Your task to perform on an android device: open device folders in google photos Image 0: 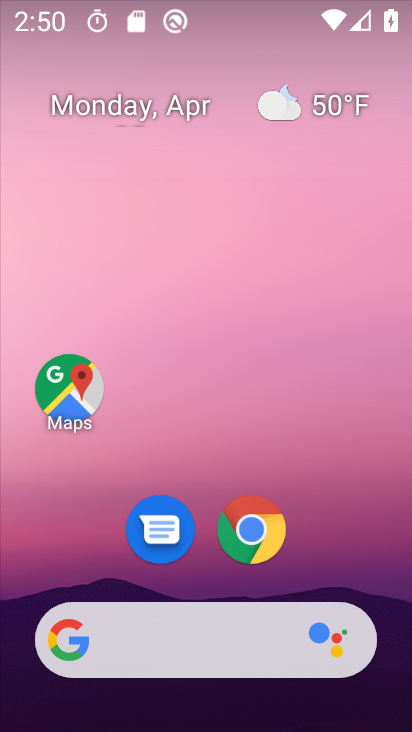
Step 0: click (288, 208)
Your task to perform on an android device: open device folders in google photos Image 1: 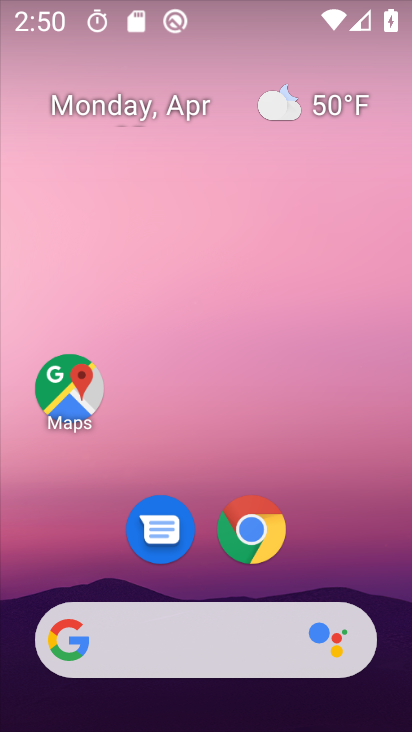
Step 1: drag from (320, 291) to (304, 210)
Your task to perform on an android device: open device folders in google photos Image 2: 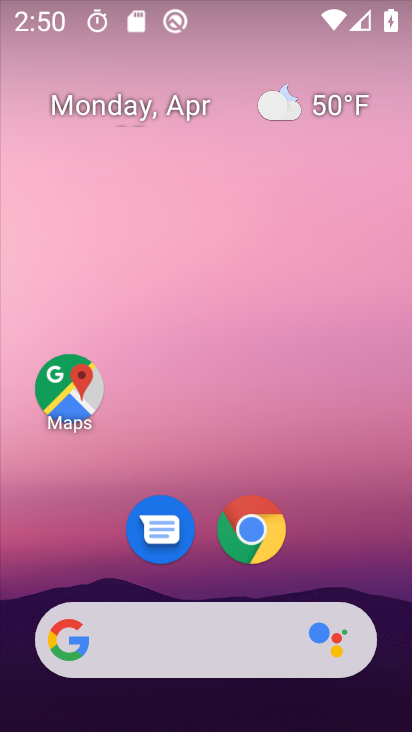
Step 2: click (336, 290)
Your task to perform on an android device: open device folders in google photos Image 3: 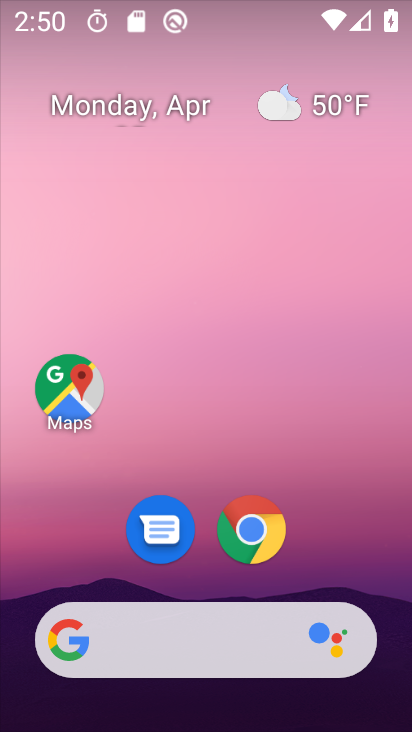
Step 3: drag from (343, 396) to (298, 150)
Your task to perform on an android device: open device folders in google photos Image 4: 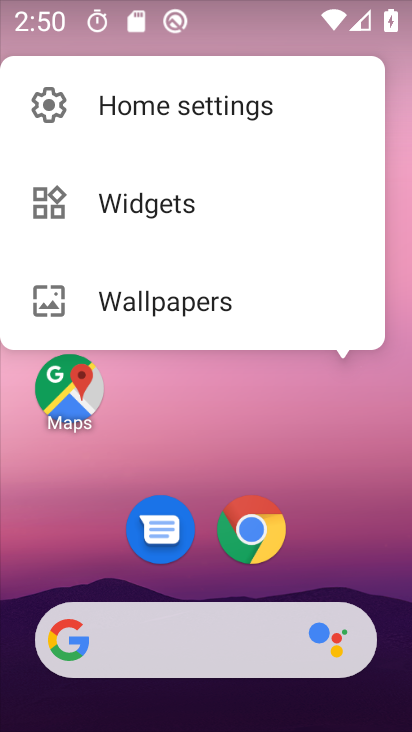
Step 4: click (336, 441)
Your task to perform on an android device: open device folders in google photos Image 5: 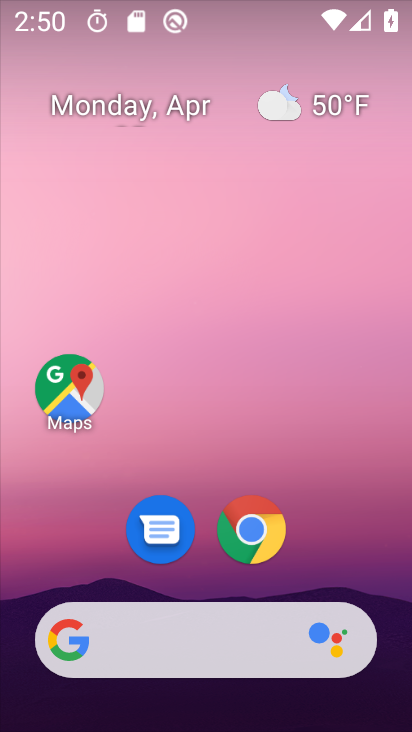
Step 5: drag from (385, 496) to (319, 115)
Your task to perform on an android device: open device folders in google photos Image 6: 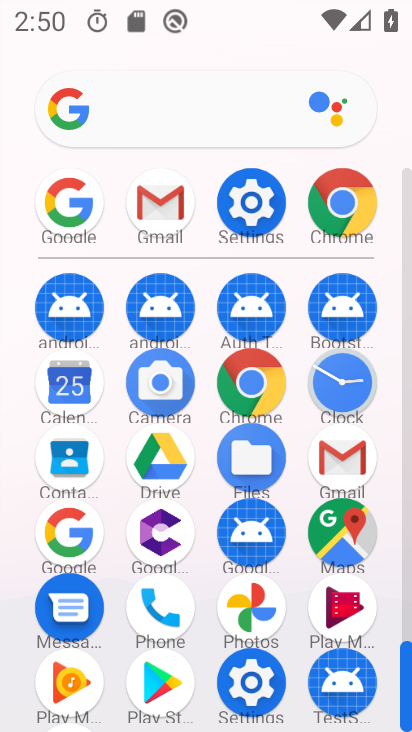
Step 6: click (251, 588)
Your task to perform on an android device: open device folders in google photos Image 7: 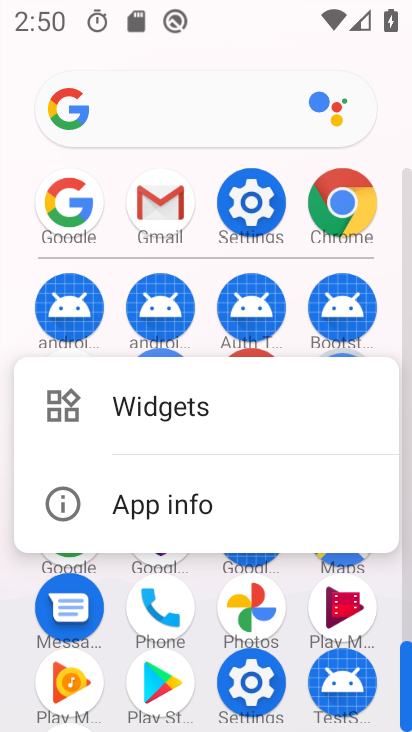
Step 7: click (253, 606)
Your task to perform on an android device: open device folders in google photos Image 8: 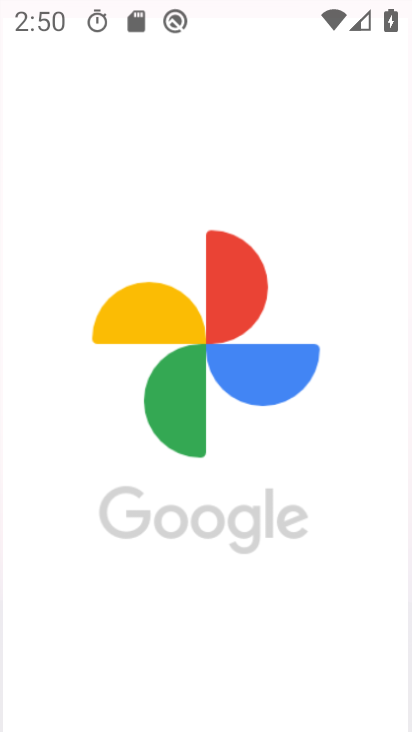
Step 8: click (253, 606)
Your task to perform on an android device: open device folders in google photos Image 9: 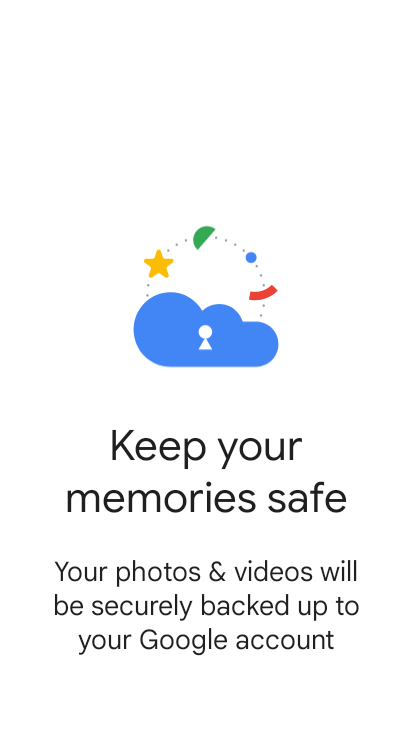
Step 9: task complete